Your task to perform on an android device: change timer sound Image 0: 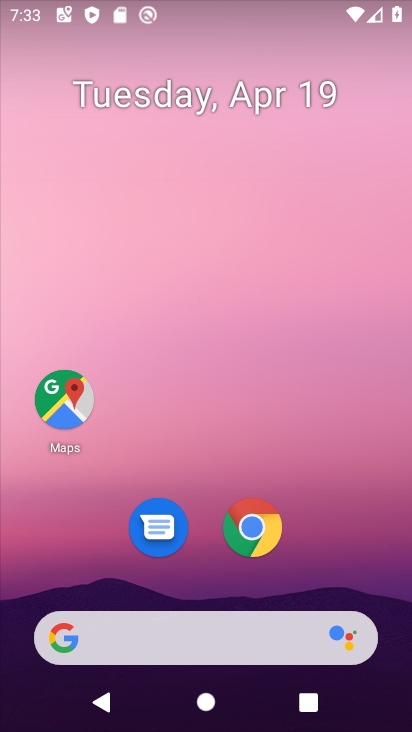
Step 0: drag from (384, 565) to (346, 143)
Your task to perform on an android device: change timer sound Image 1: 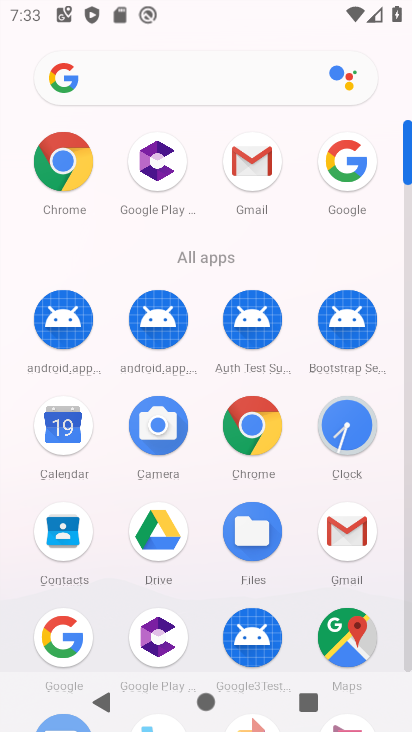
Step 1: click (339, 441)
Your task to perform on an android device: change timer sound Image 2: 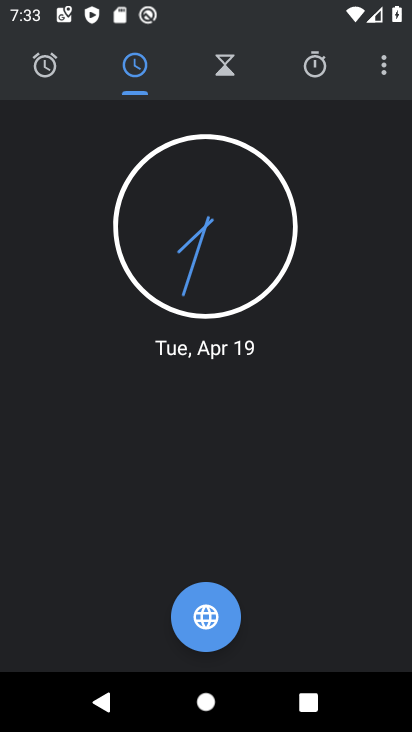
Step 2: click (379, 70)
Your task to perform on an android device: change timer sound Image 3: 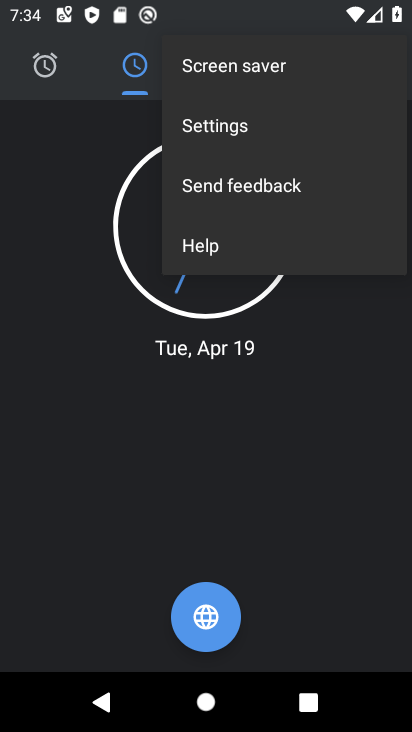
Step 3: click (228, 136)
Your task to perform on an android device: change timer sound Image 4: 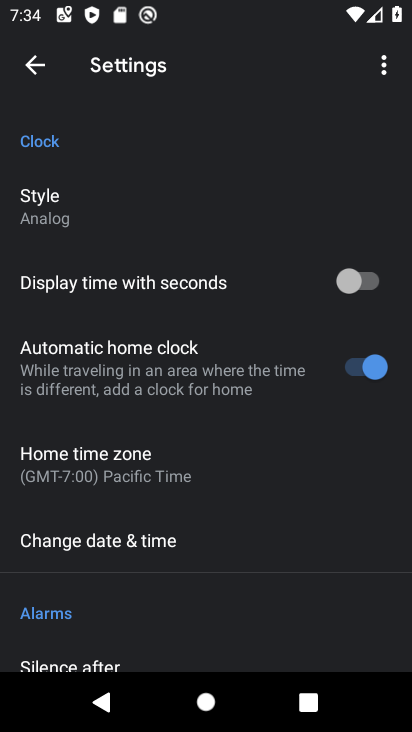
Step 4: drag from (252, 581) to (265, 207)
Your task to perform on an android device: change timer sound Image 5: 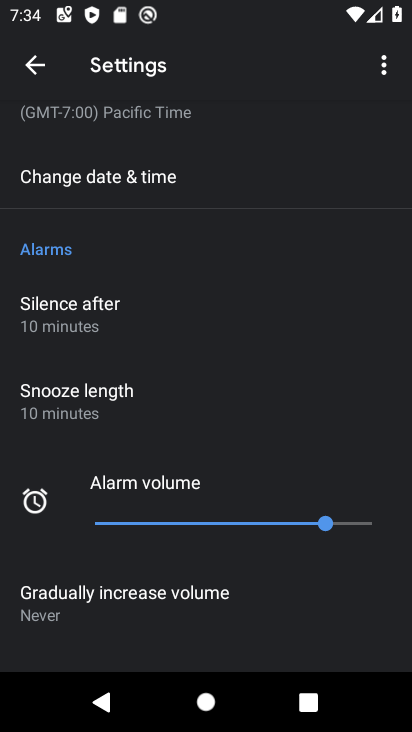
Step 5: drag from (313, 529) to (285, 195)
Your task to perform on an android device: change timer sound Image 6: 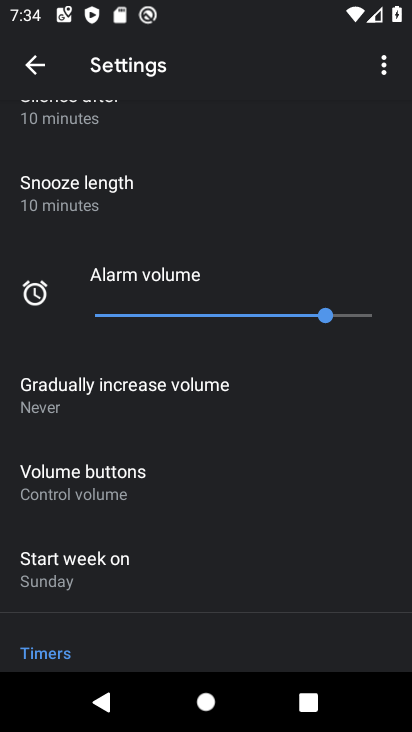
Step 6: drag from (233, 573) to (250, 188)
Your task to perform on an android device: change timer sound Image 7: 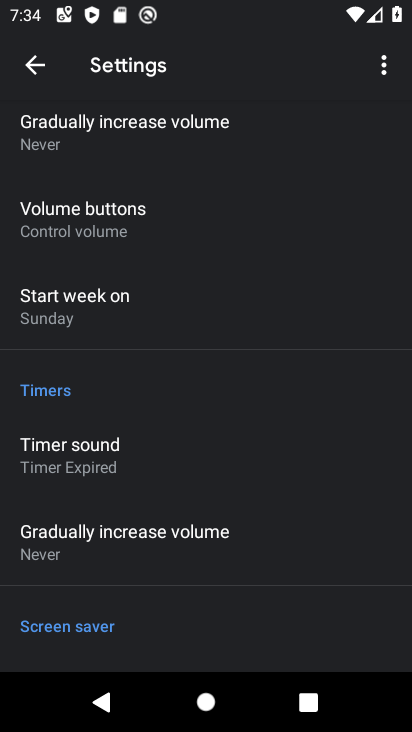
Step 7: click (47, 463)
Your task to perform on an android device: change timer sound Image 8: 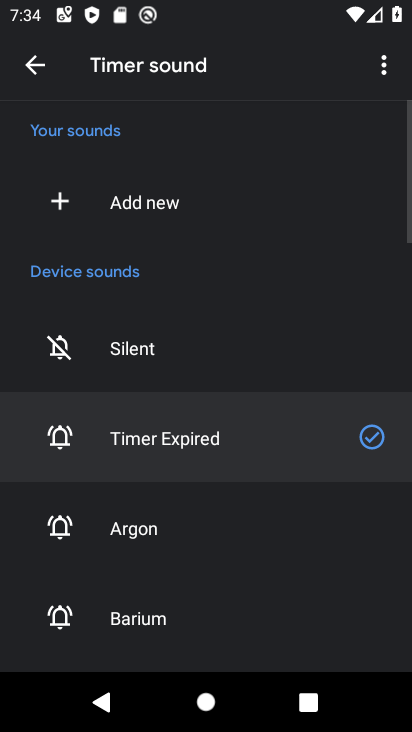
Step 8: click (126, 534)
Your task to perform on an android device: change timer sound Image 9: 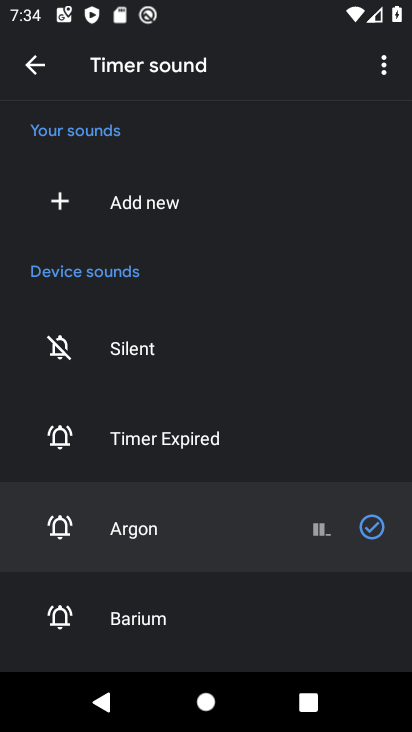
Step 9: task complete